Your task to perform on an android device: turn on the 24-hour format for clock Image 0: 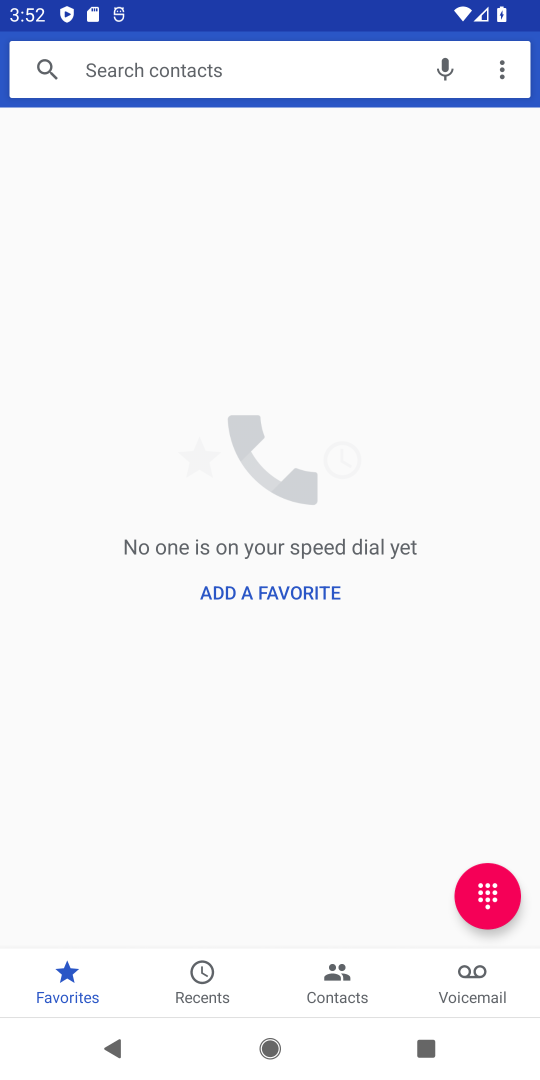
Step 0: press home button
Your task to perform on an android device: turn on the 24-hour format for clock Image 1: 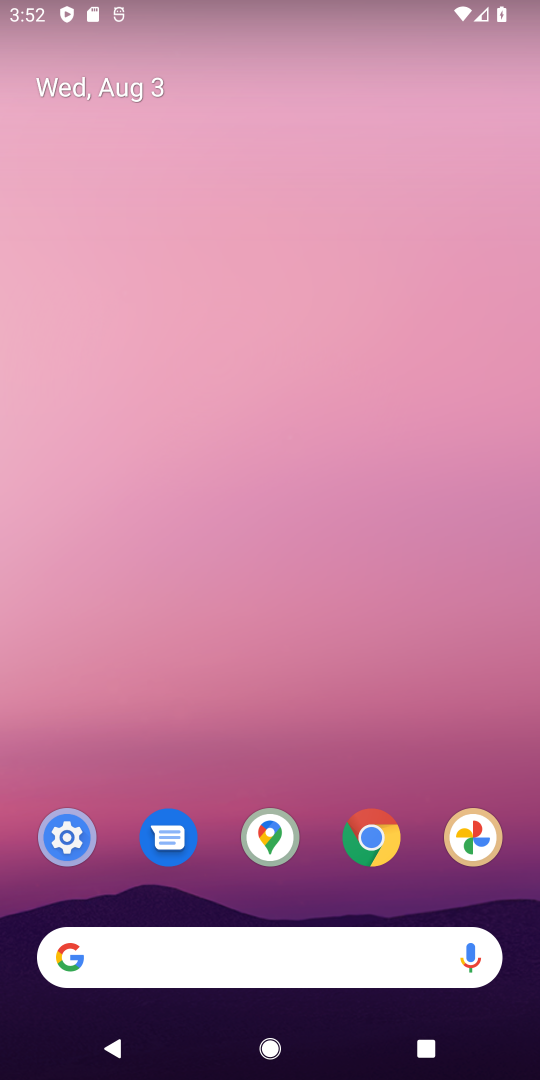
Step 1: drag from (430, 903) to (391, 183)
Your task to perform on an android device: turn on the 24-hour format for clock Image 2: 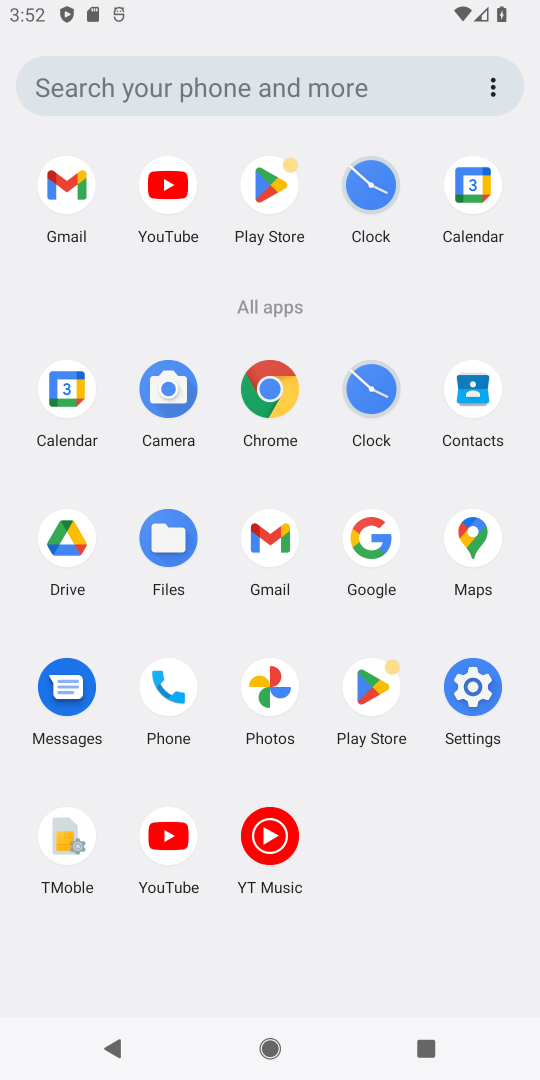
Step 2: click (370, 390)
Your task to perform on an android device: turn on the 24-hour format for clock Image 3: 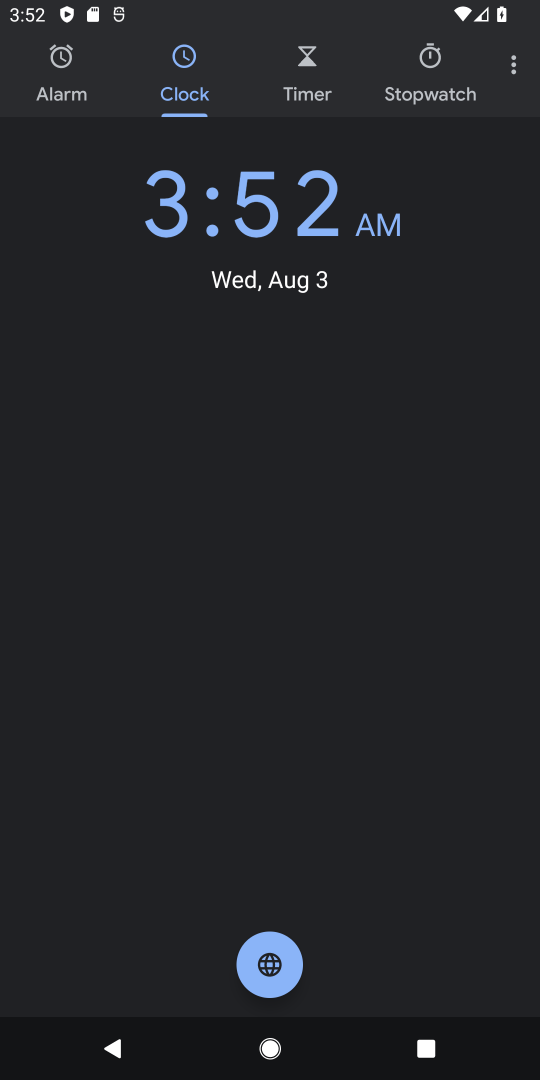
Step 3: click (512, 75)
Your task to perform on an android device: turn on the 24-hour format for clock Image 4: 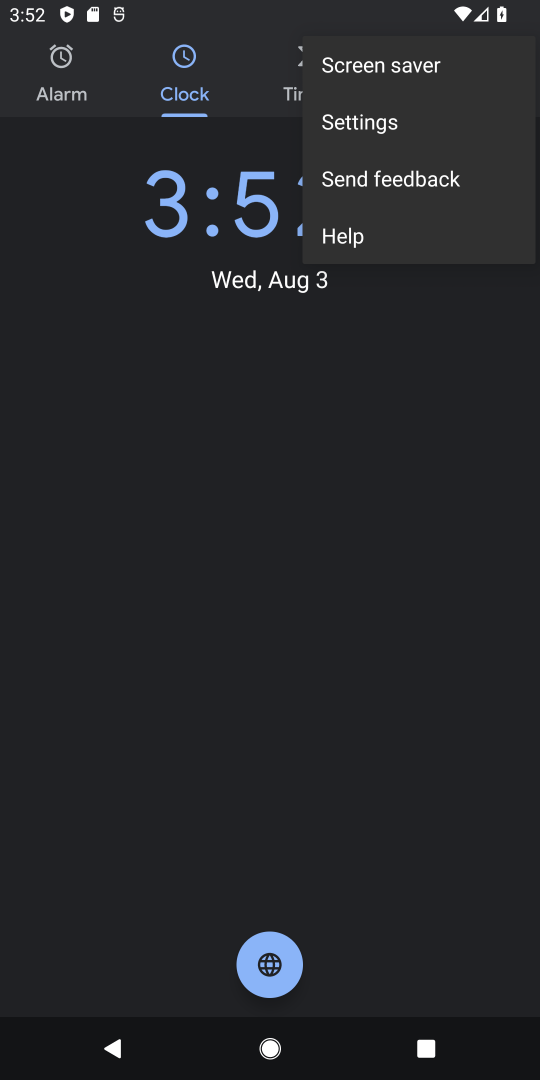
Step 4: click (353, 123)
Your task to perform on an android device: turn on the 24-hour format for clock Image 5: 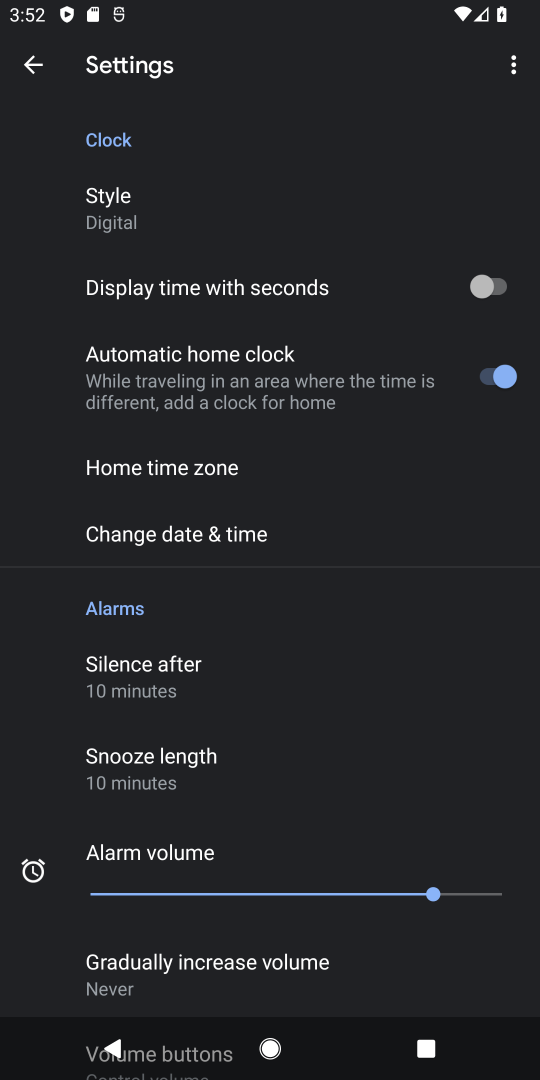
Step 5: click (185, 532)
Your task to perform on an android device: turn on the 24-hour format for clock Image 6: 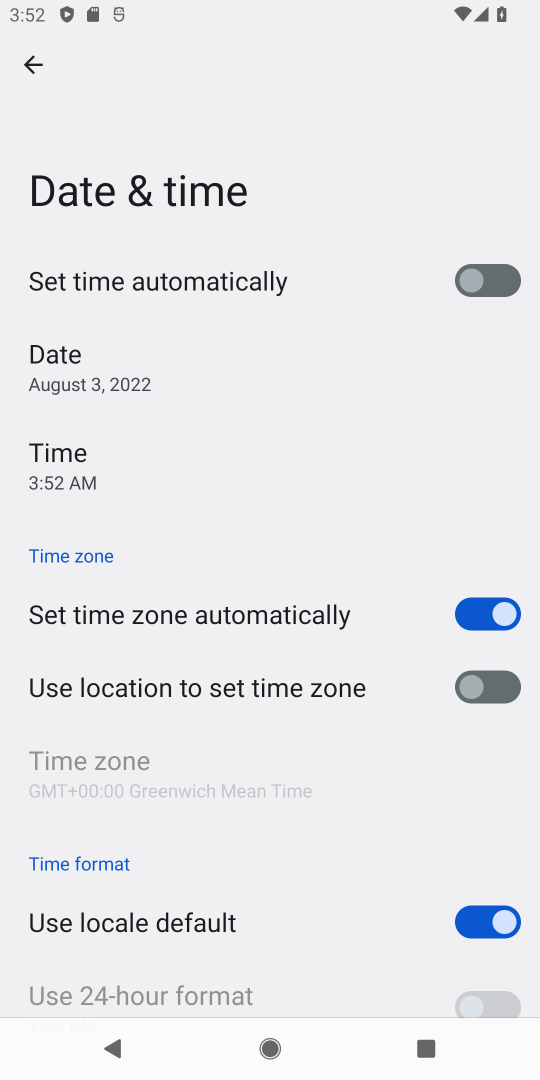
Step 6: drag from (346, 884) to (309, 482)
Your task to perform on an android device: turn on the 24-hour format for clock Image 7: 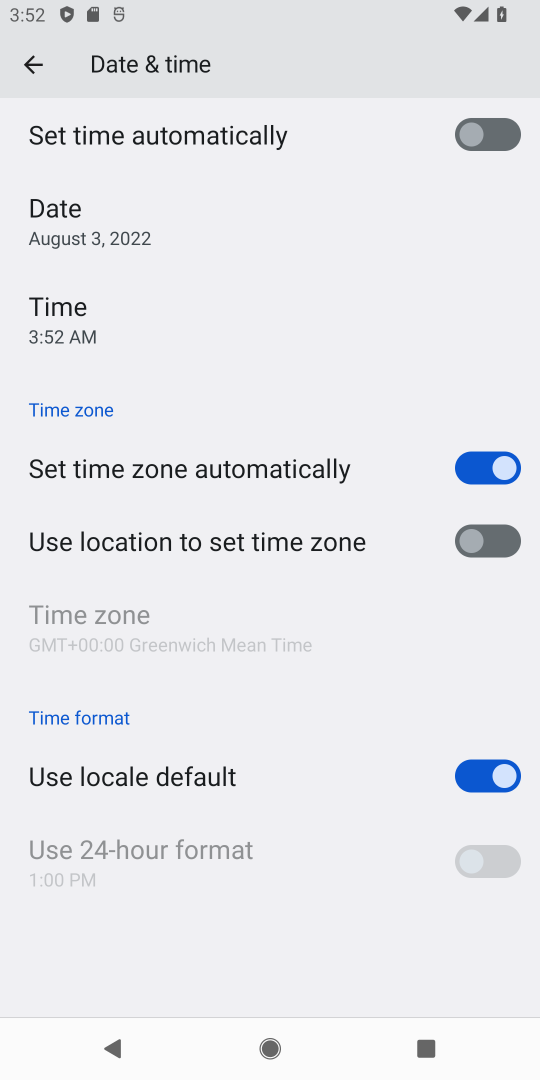
Step 7: click (462, 767)
Your task to perform on an android device: turn on the 24-hour format for clock Image 8: 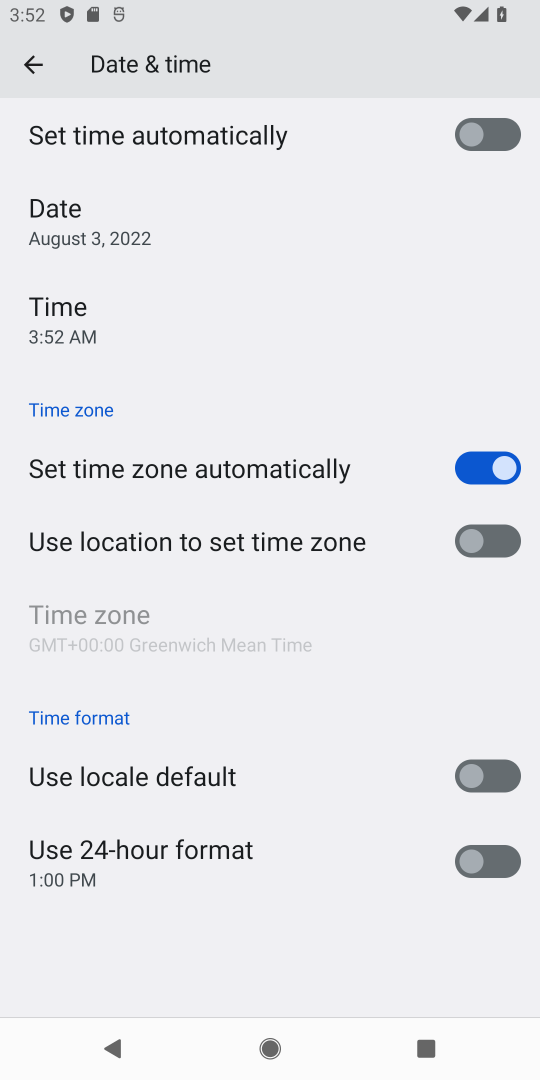
Step 8: click (509, 869)
Your task to perform on an android device: turn on the 24-hour format for clock Image 9: 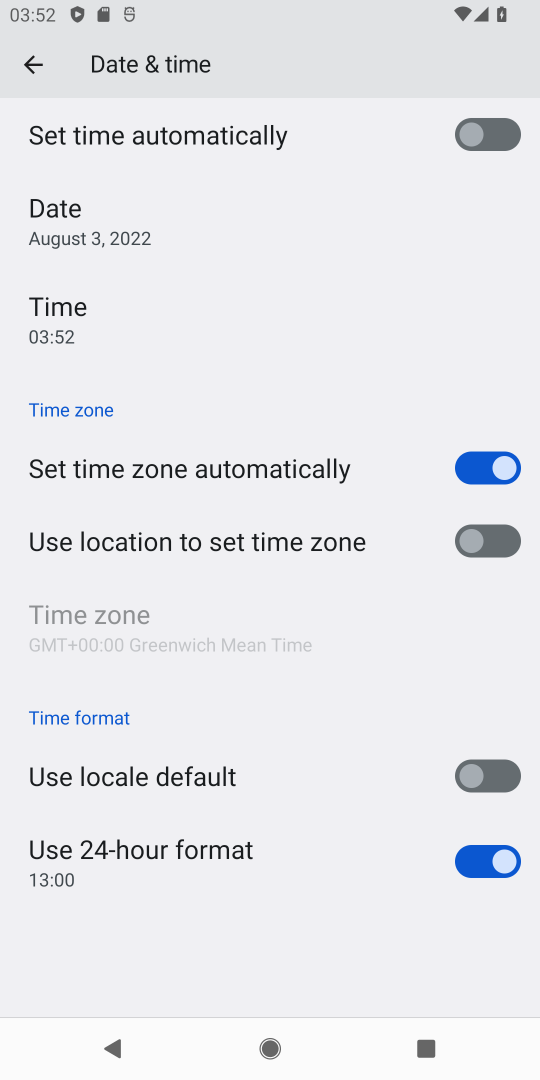
Step 9: task complete